Your task to perform on an android device: Go to ESPN.com Image 0: 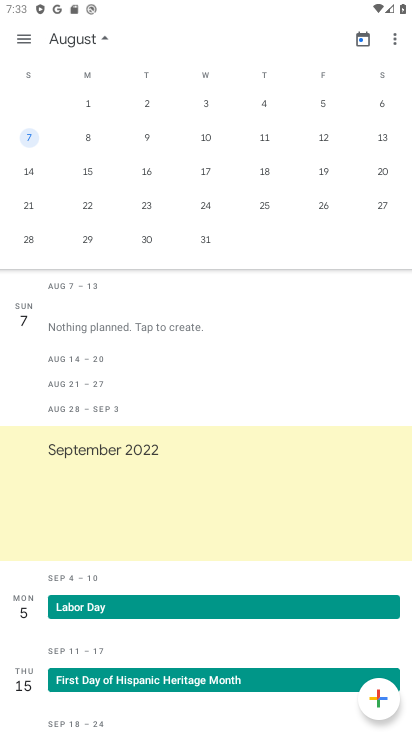
Step 0: press home button
Your task to perform on an android device: Go to ESPN.com Image 1: 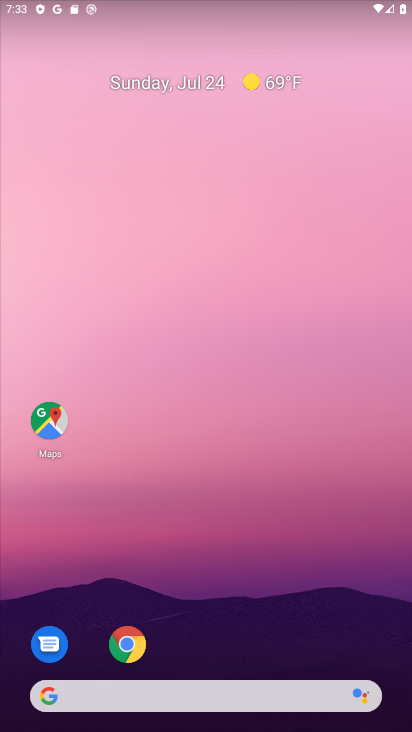
Step 1: drag from (186, 608) to (184, 261)
Your task to perform on an android device: Go to ESPN.com Image 2: 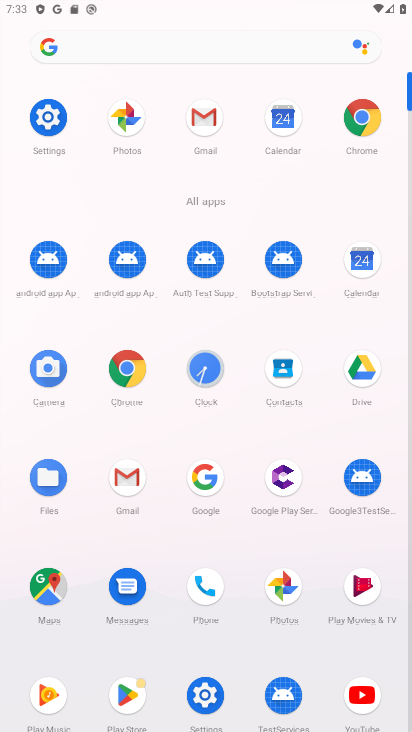
Step 2: click (116, 370)
Your task to perform on an android device: Go to ESPN.com Image 3: 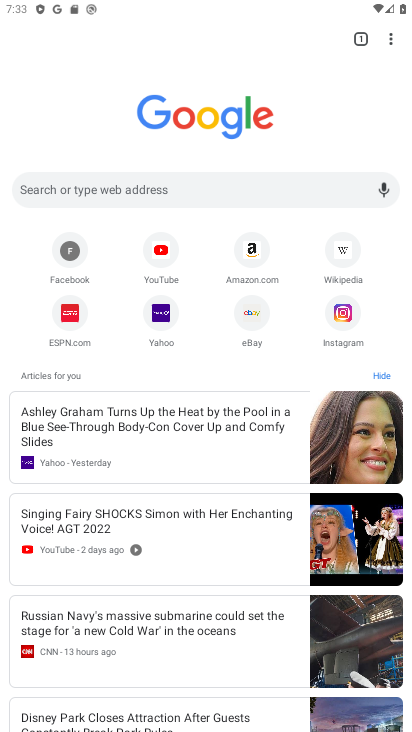
Step 3: click (64, 311)
Your task to perform on an android device: Go to ESPN.com Image 4: 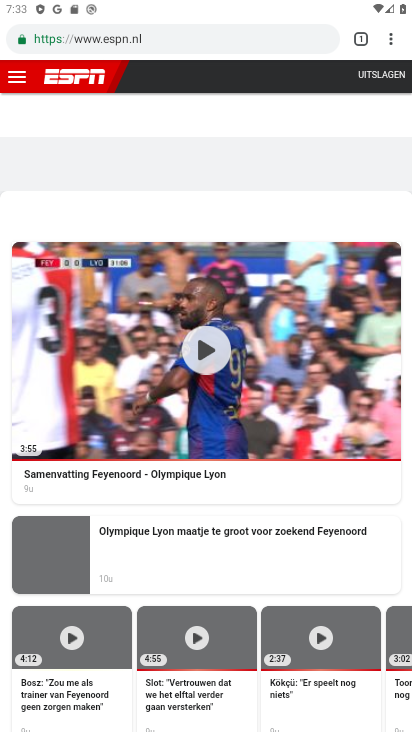
Step 4: task complete